Your task to perform on an android device: Open settings on Google Maps Image 0: 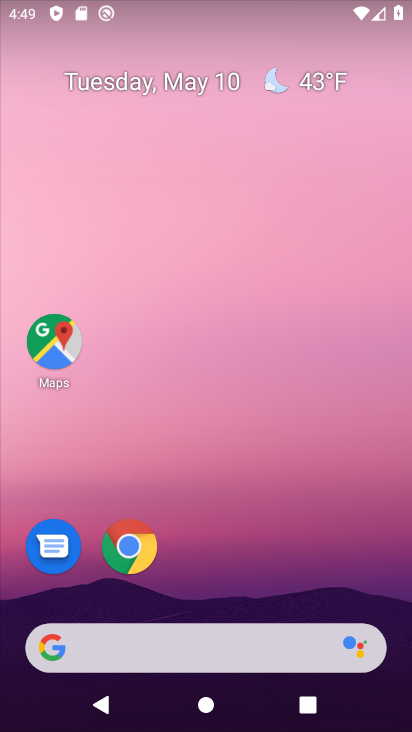
Step 0: click (49, 338)
Your task to perform on an android device: Open settings on Google Maps Image 1: 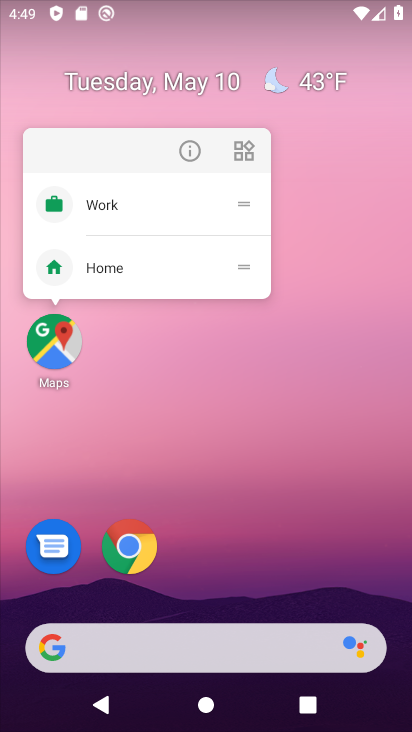
Step 1: click (66, 337)
Your task to perform on an android device: Open settings on Google Maps Image 2: 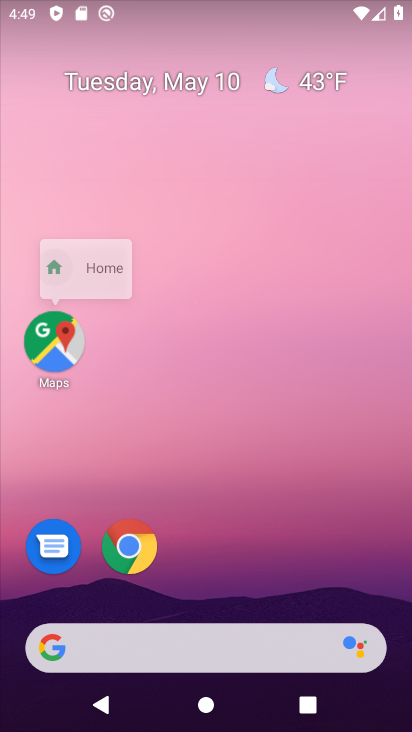
Step 2: click (67, 336)
Your task to perform on an android device: Open settings on Google Maps Image 3: 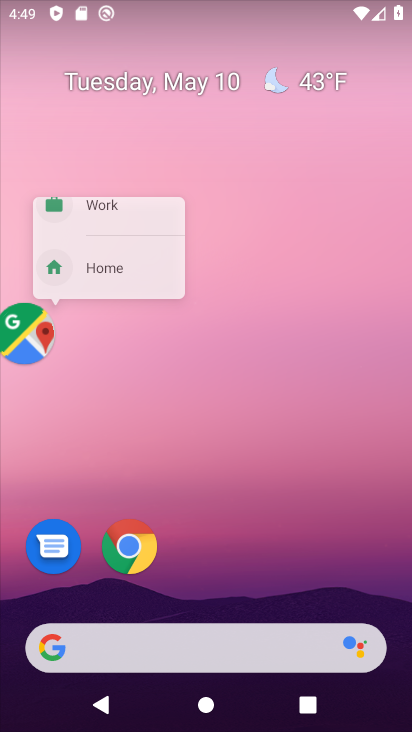
Step 3: click (49, 340)
Your task to perform on an android device: Open settings on Google Maps Image 4: 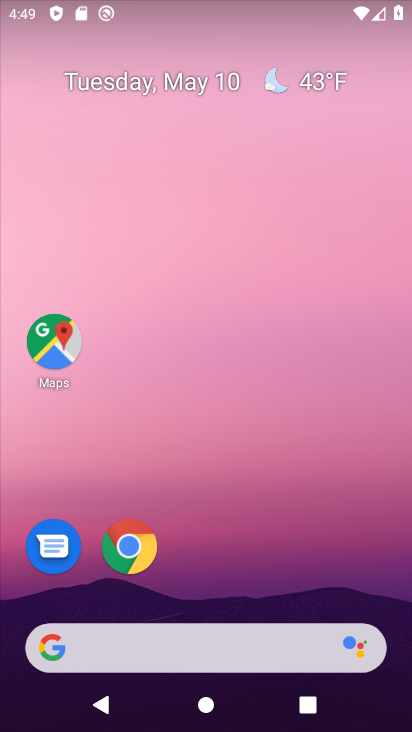
Step 4: click (50, 358)
Your task to perform on an android device: Open settings on Google Maps Image 5: 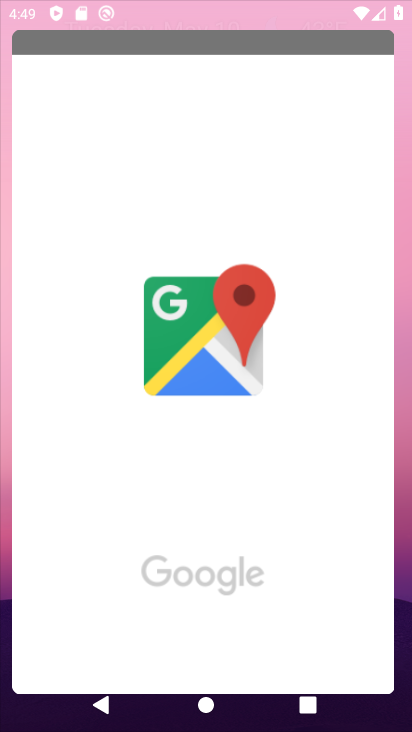
Step 5: click (65, 353)
Your task to perform on an android device: Open settings on Google Maps Image 6: 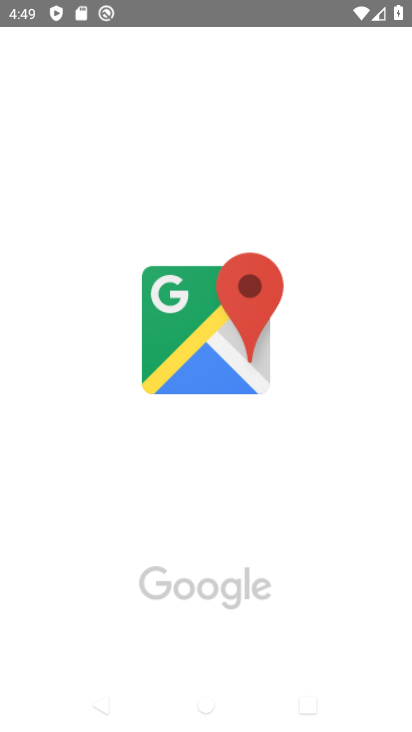
Step 6: click (65, 353)
Your task to perform on an android device: Open settings on Google Maps Image 7: 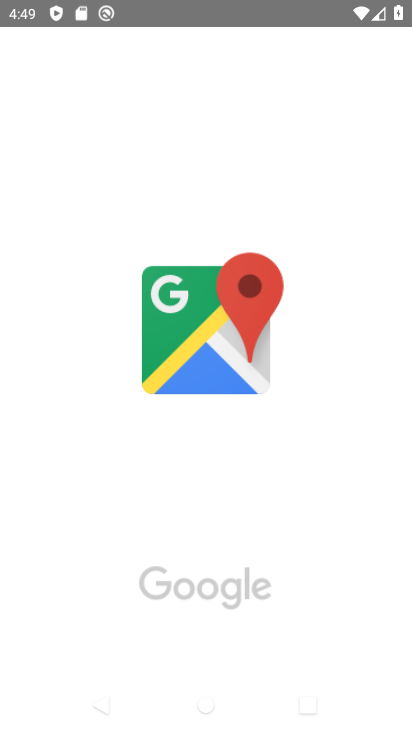
Step 7: click (65, 353)
Your task to perform on an android device: Open settings on Google Maps Image 8: 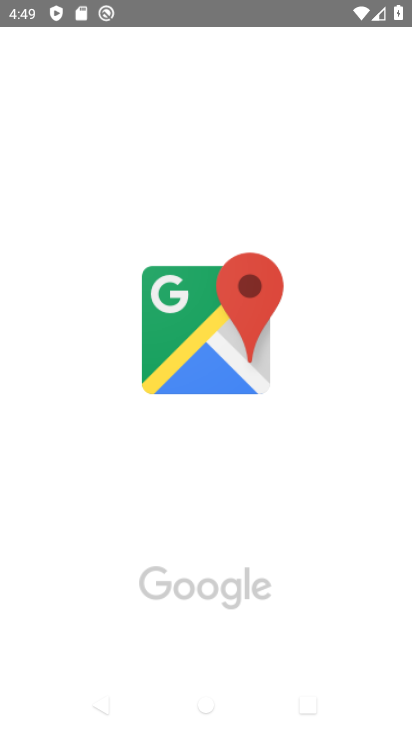
Step 8: click (211, 324)
Your task to perform on an android device: Open settings on Google Maps Image 9: 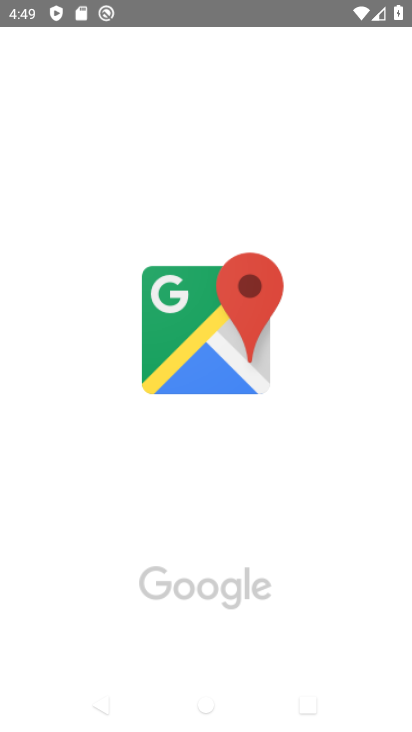
Step 9: click (211, 324)
Your task to perform on an android device: Open settings on Google Maps Image 10: 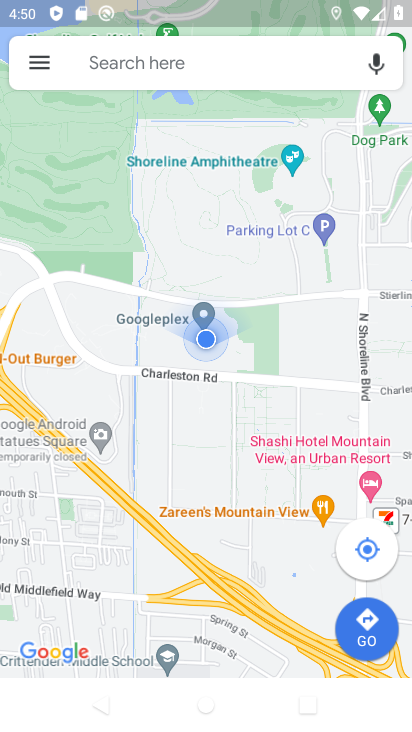
Step 10: task complete